Your task to perform on an android device: Check the weather Image 0: 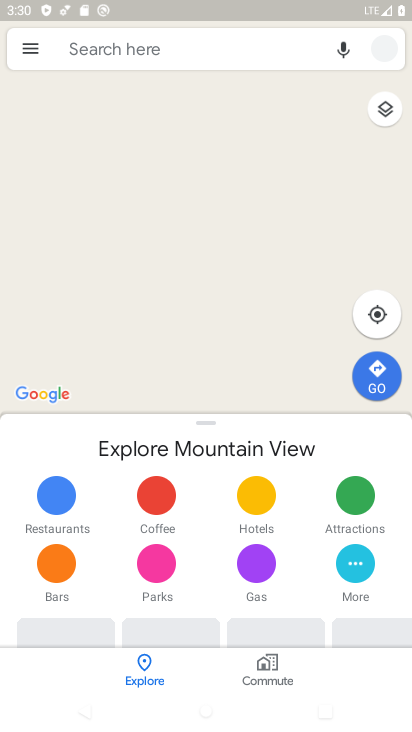
Step 0: drag from (297, 701) to (220, 268)
Your task to perform on an android device: Check the weather Image 1: 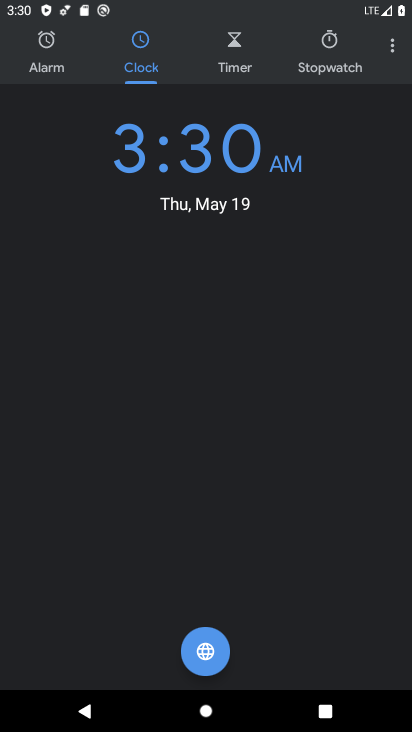
Step 1: press home button
Your task to perform on an android device: Check the weather Image 2: 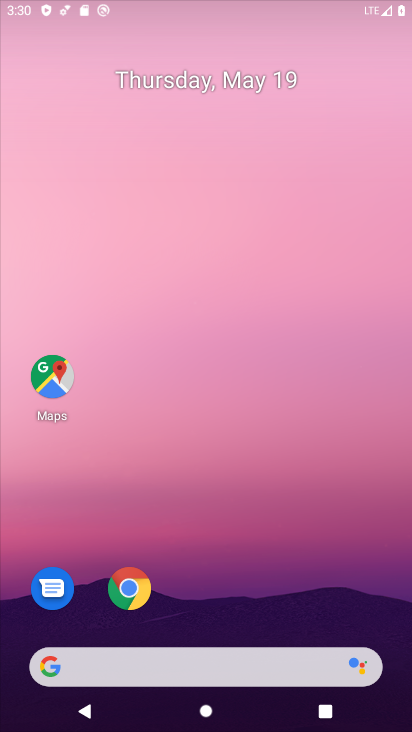
Step 2: drag from (248, 675) to (204, 177)
Your task to perform on an android device: Check the weather Image 3: 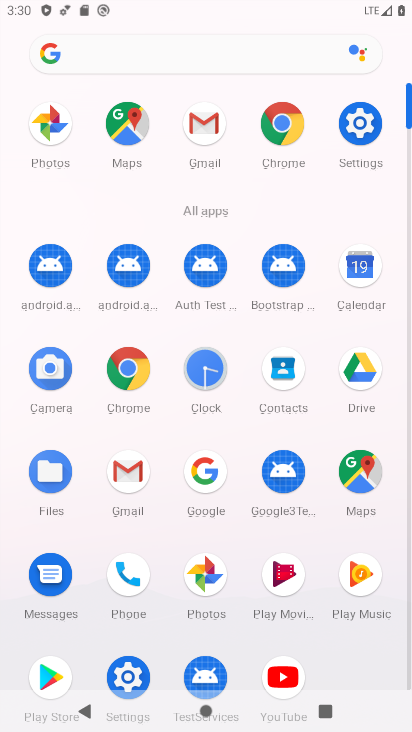
Step 3: click (356, 149)
Your task to perform on an android device: Check the weather Image 4: 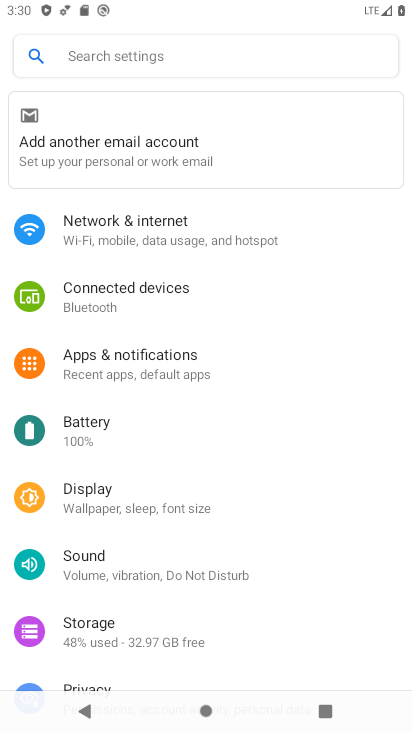
Step 4: press home button
Your task to perform on an android device: Check the weather Image 5: 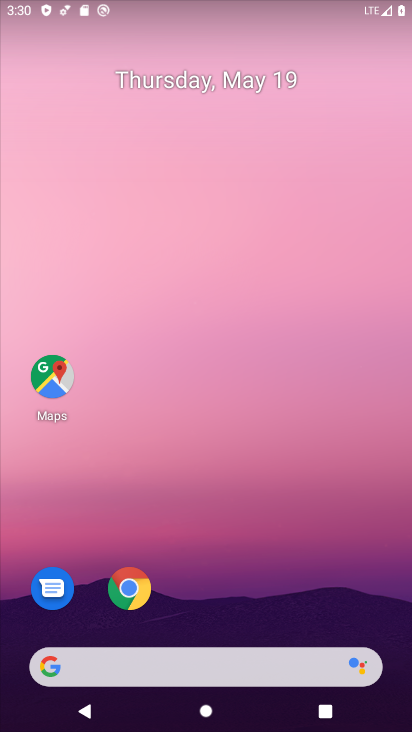
Step 5: drag from (232, 679) to (153, 191)
Your task to perform on an android device: Check the weather Image 6: 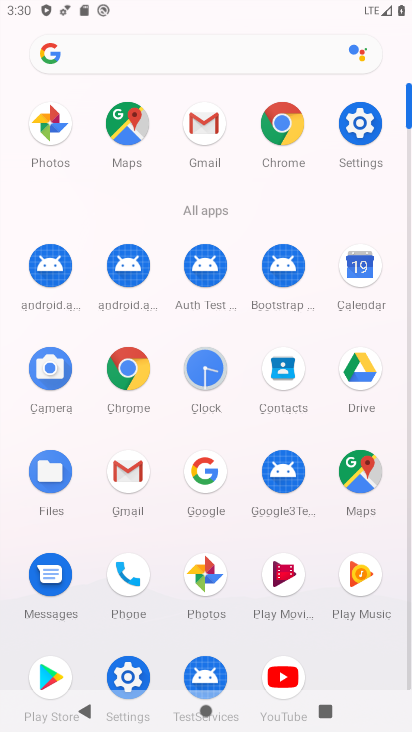
Step 6: click (142, 54)
Your task to perform on an android device: Check the weather Image 7: 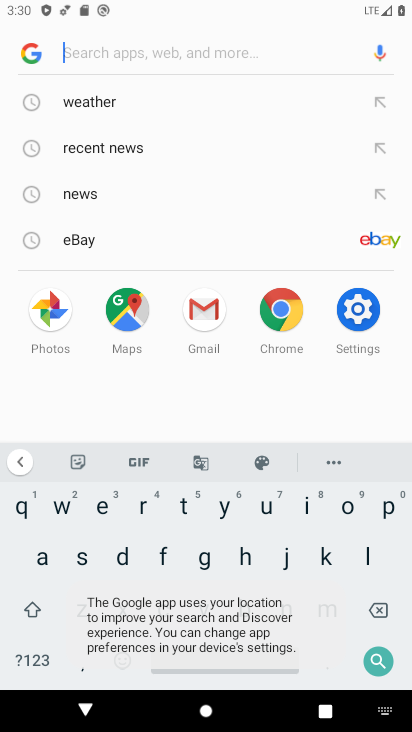
Step 7: click (143, 102)
Your task to perform on an android device: Check the weather Image 8: 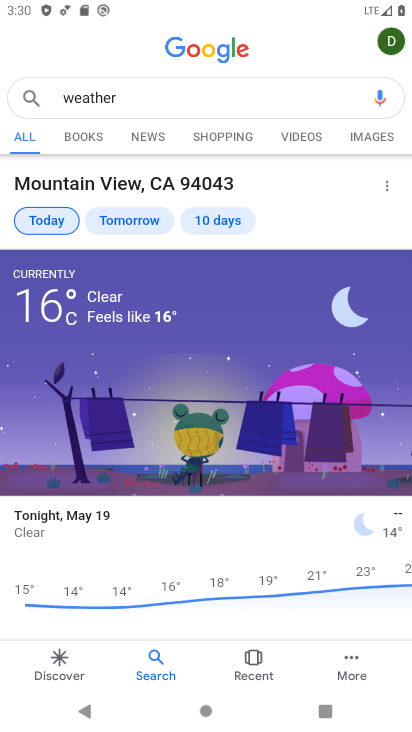
Step 8: task complete